Your task to perform on an android device: Open accessibility settings Image 0: 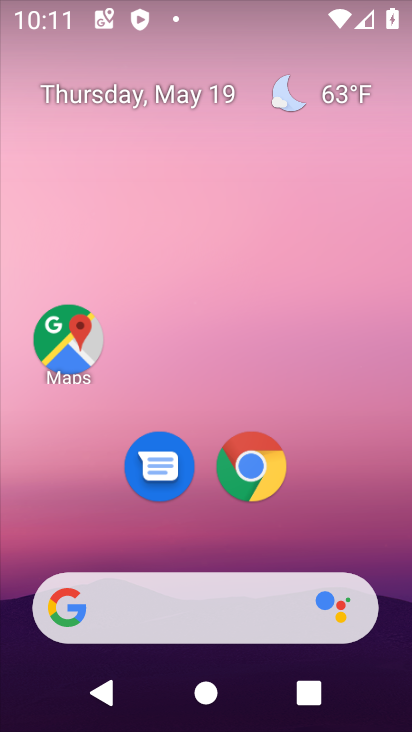
Step 0: drag from (380, 634) to (337, 52)
Your task to perform on an android device: Open accessibility settings Image 1: 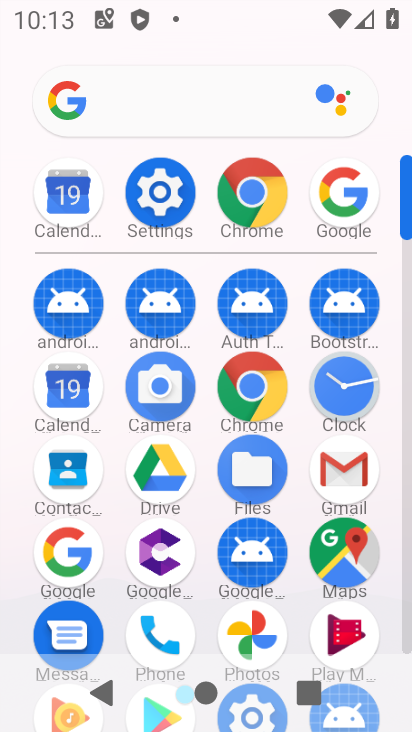
Step 1: click (160, 200)
Your task to perform on an android device: Open accessibility settings Image 2: 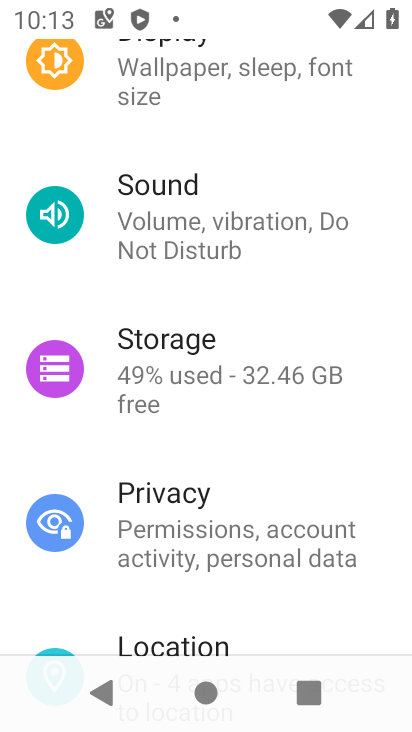
Step 2: drag from (167, 206) to (220, 616)
Your task to perform on an android device: Open accessibility settings Image 3: 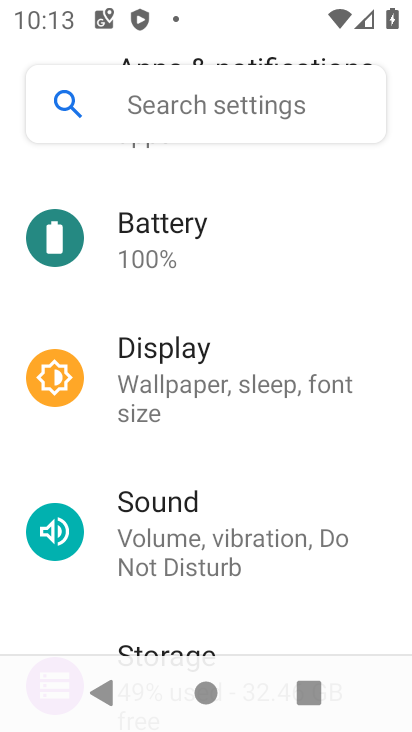
Step 3: drag from (259, 211) to (267, 611)
Your task to perform on an android device: Open accessibility settings Image 4: 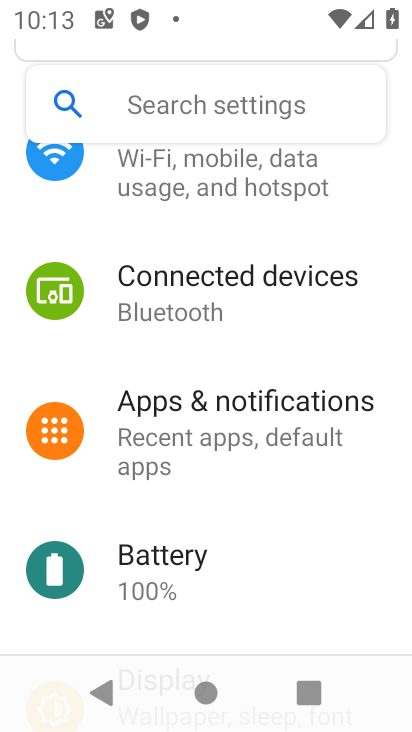
Step 4: drag from (252, 239) to (263, 545)
Your task to perform on an android device: Open accessibility settings Image 5: 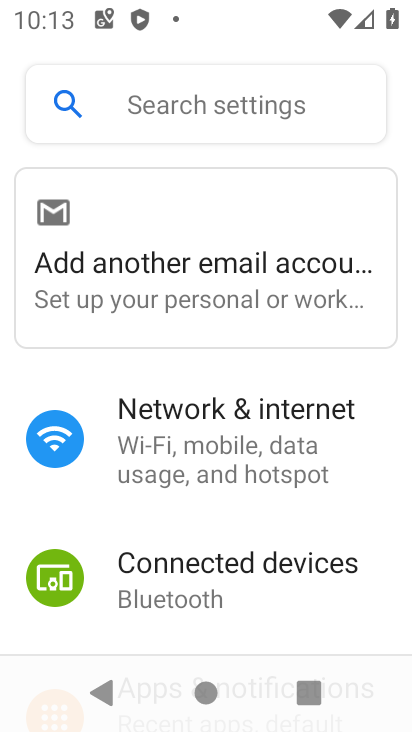
Step 5: drag from (261, 547) to (249, 82)
Your task to perform on an android device: Open accessibility settings Image 6: 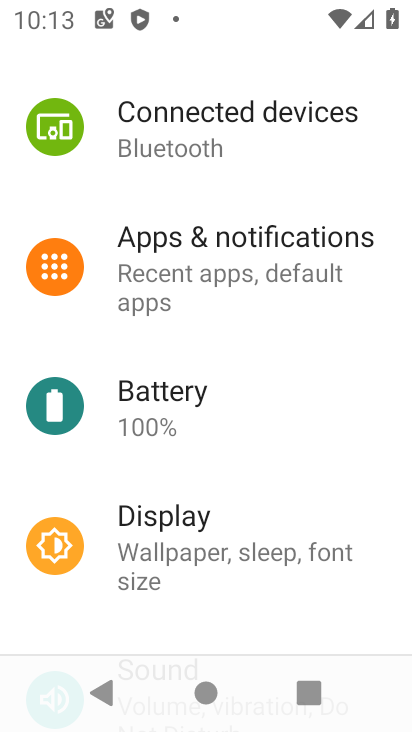
Step 6: drag from (296, 574) to (284, 83)
Your task to perform on an android device: Open accessibility settings Image 7: 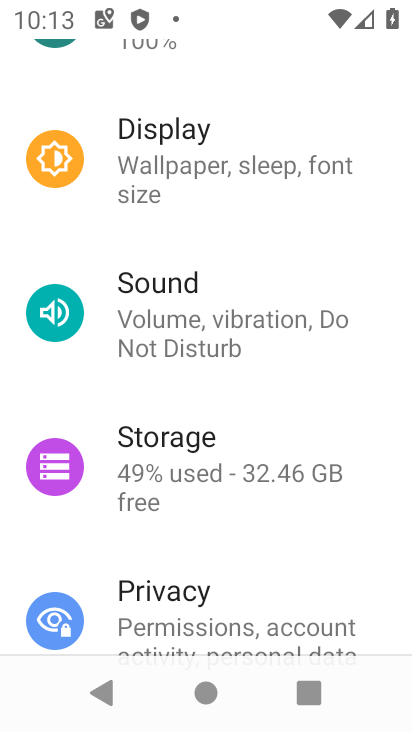
Step 7: drag from (226, 600) to (243, 107)
Your task to perform on an android device: Open accessibility settings Image 8: 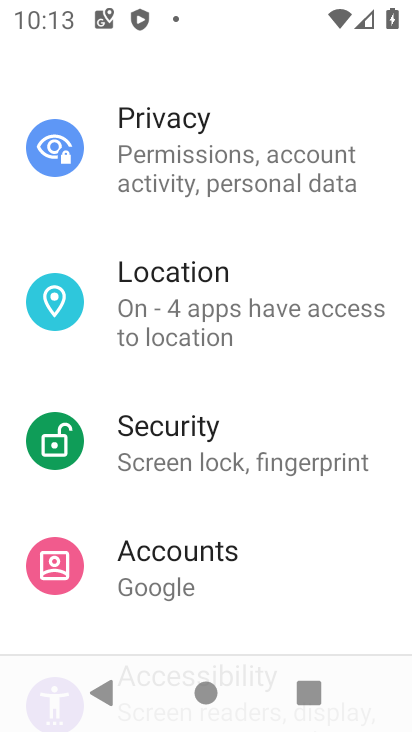
Step 8: drag from (205, 577) to (251, 150)
Your task to perform on an android device: Open accessibility settings Image 9: 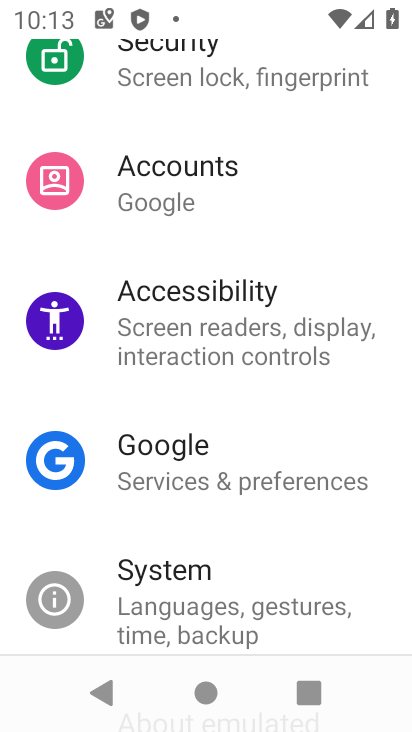
Step 9: click (171, 318)
Your task to perform on an android device: Open accessibility settings Image 10: 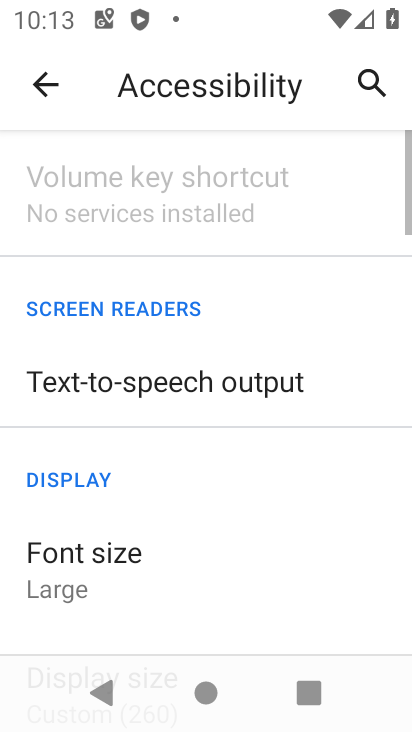
Step 10: task complete